Your task to perform on an android device: Open Android settings Image 0: 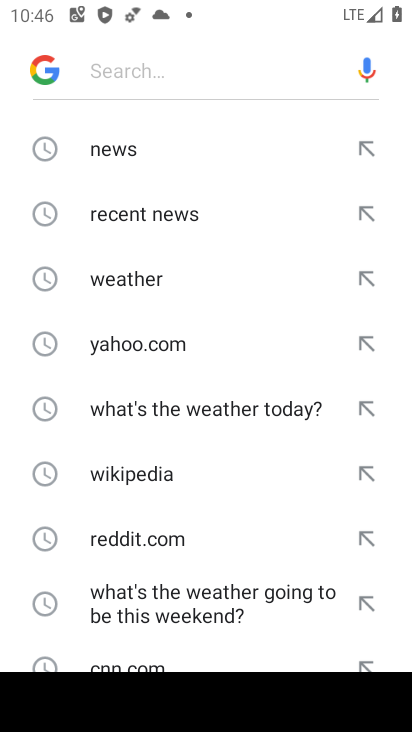
Step 0: press home button
Your task to perform on an android device: Open Android settings Image 1: 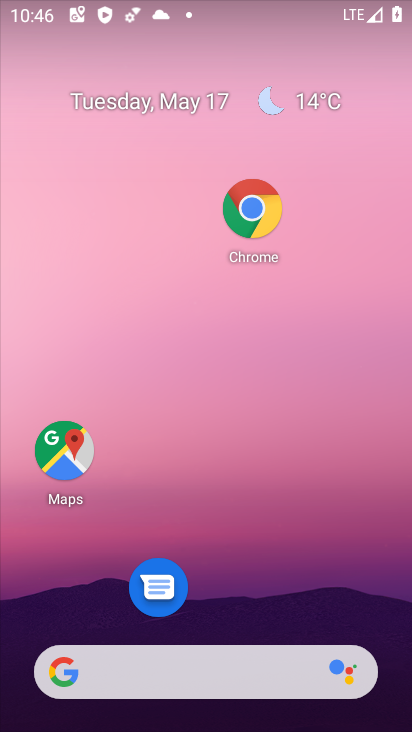
Step 1: drag from (268, 596) to (302, 104)
Your task to perform on an android device: Open Android settings Image 2: 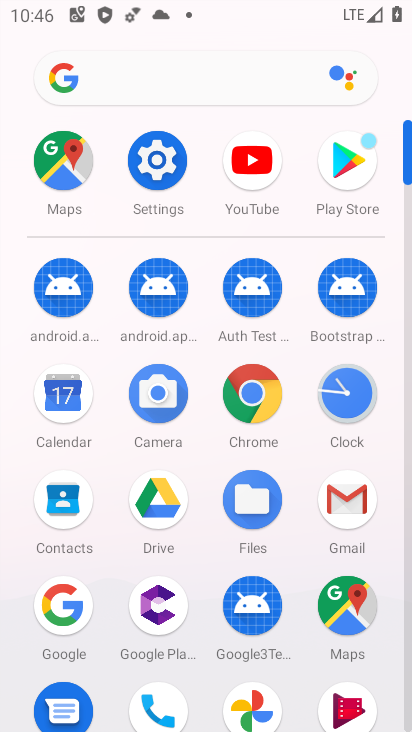
Step 2: click (155, 174)
Your task to perform on an android device: Open Android settings Image 3: 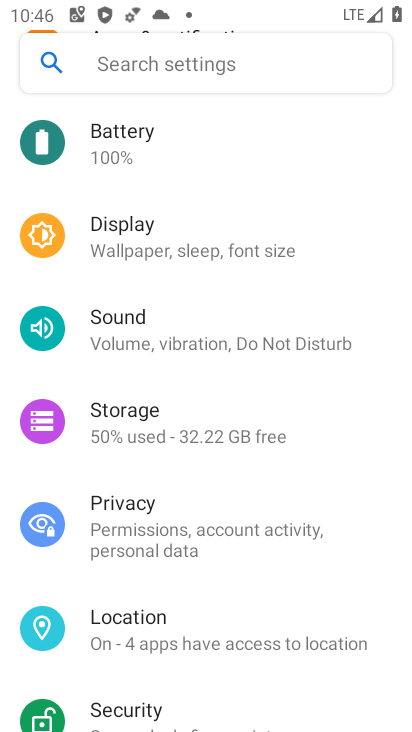
Step 3: drag from (326, 679) to (328, 186)
Your task to perform on an android device: Open Android settings Image 4: 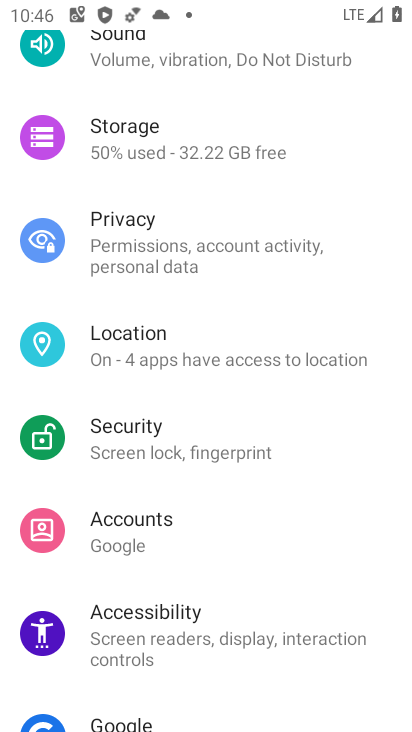
Step 4: drag from (272, 677) to (255, 224)
Your task to perform on an android device: Open Android settings Image 5: 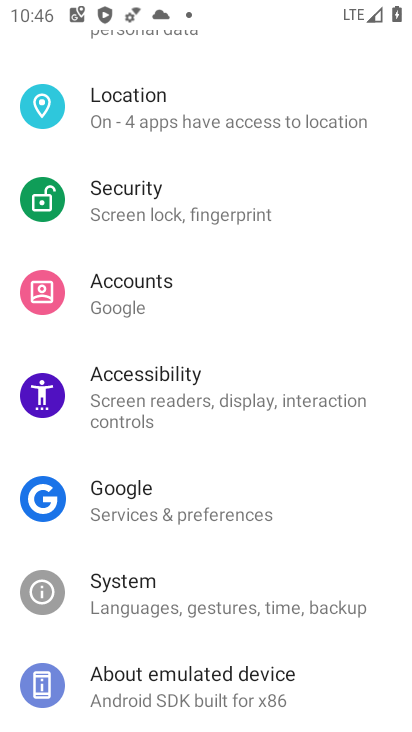
Step 5: click (236, 688)
Your task to perform on an android device: Open Android settings Image 6: 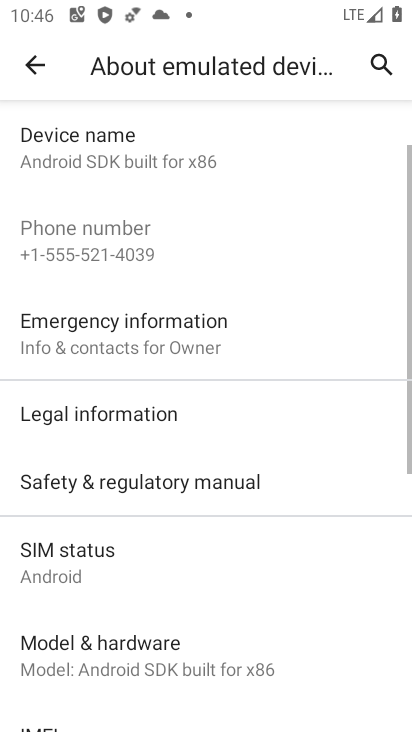
Step 6: drag from (295, 594) to (332, 181)
Your task to perform on an android device: Open Android settings Image 7: 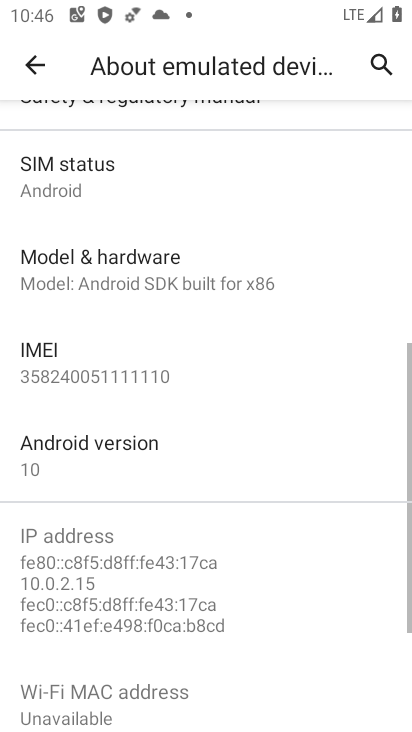
Step 7: click (109, 464)
Your task to perform on an android device: Open Android settings Image 8: 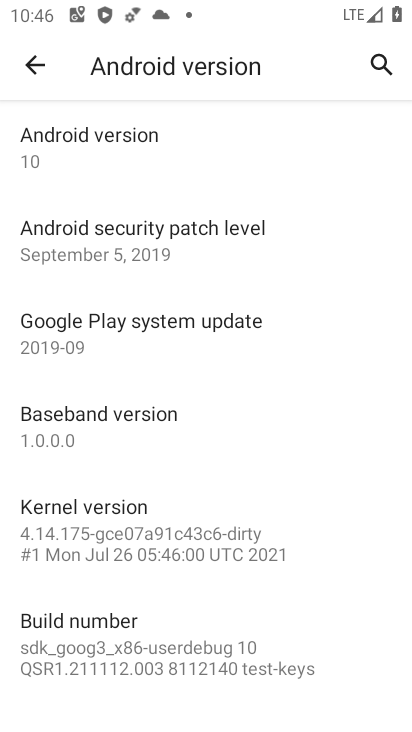
Step 8: task complete